Your task to perform on an android device: find photos in the google photos app Image 0: 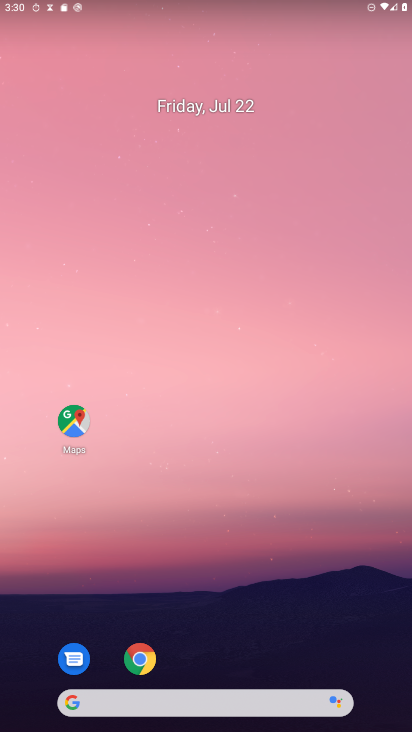
Step 0: drag from (176, 613) to (21, 96)
Your task to perform on an android device: find photos in the google photos app Image 1: 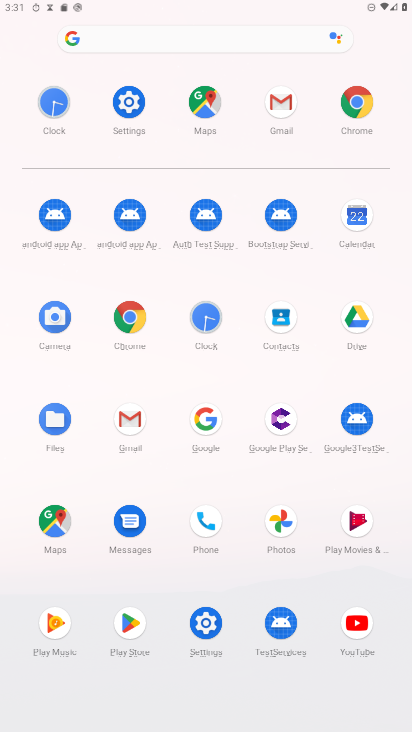
Step 1: click (285, 528)
Your task to perform on an android device: find photos in the google photos app Image 2: 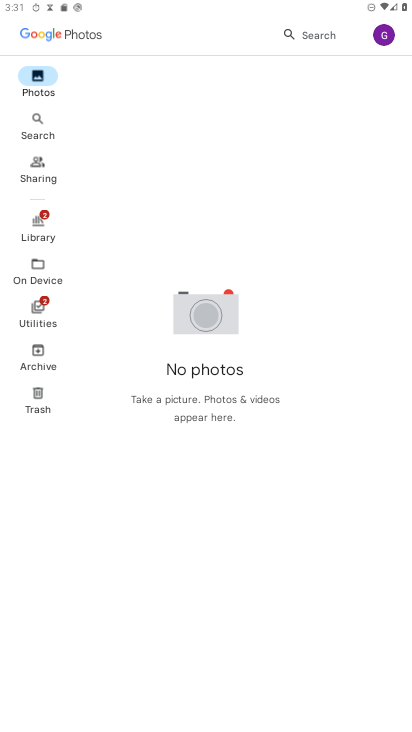
Step 2: click (25, 86)
Your task to perform on an android device: find photos in the google photos app Image 3: 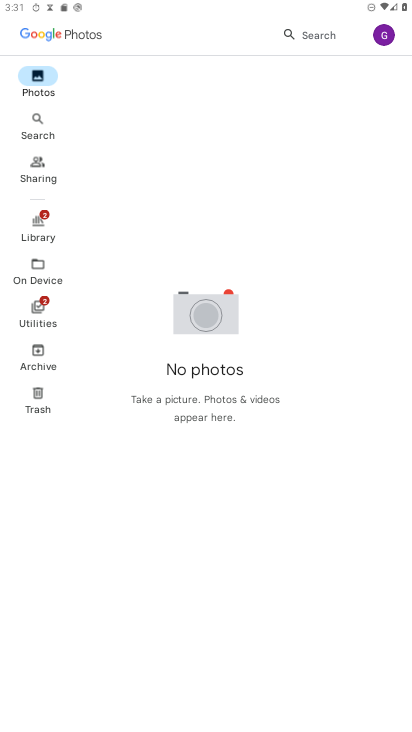
Step 3: task complete